Your task to perform on an android device: What's on my calendar today? Image 0: 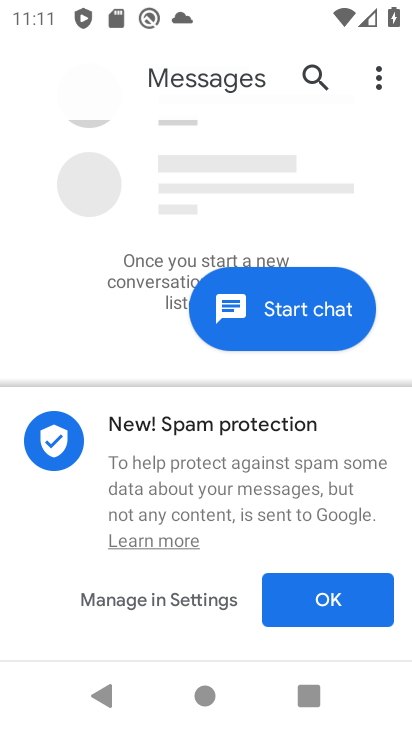
Step 0: press home button
Your task to perform on an android device: What's on my calendar today? Image 1: 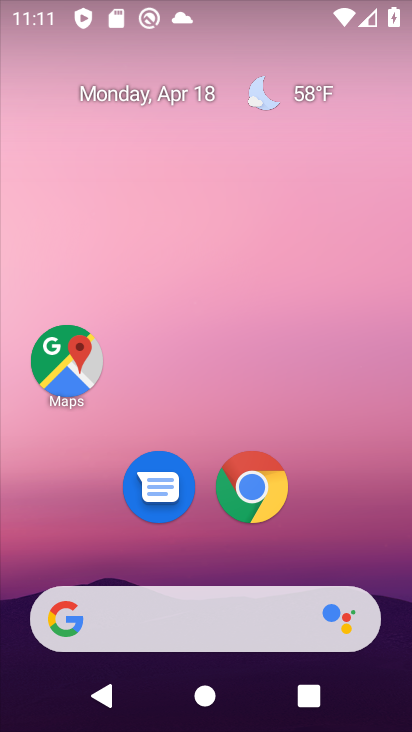
Step 1: drag from (198, 437) to (167, 118)
Your task to perform on an android device: What's on my calendar today? Image 2: 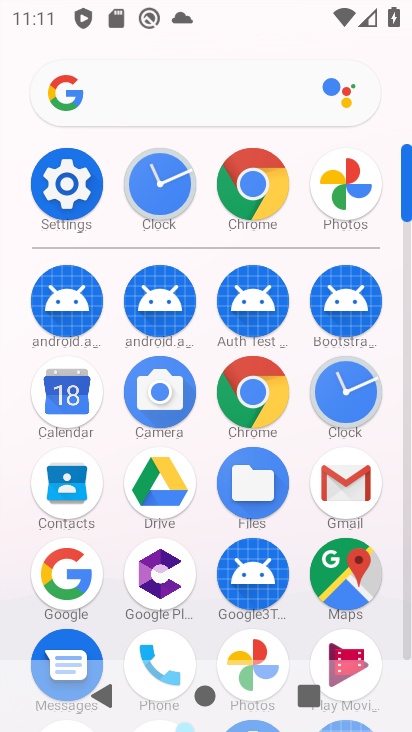
Step 2: click (88, 406)
Your task to perform on an android device: What's on my calendar today? Image 3: 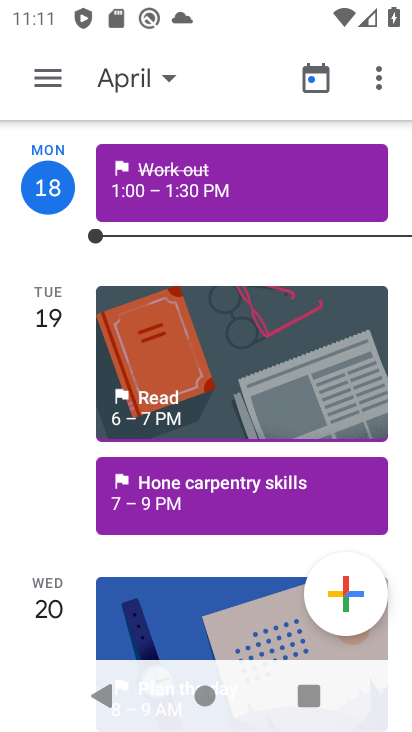
Step 3: click (65, 70)
Your task to perform on an android device: What's on my calendar today? Image 4: 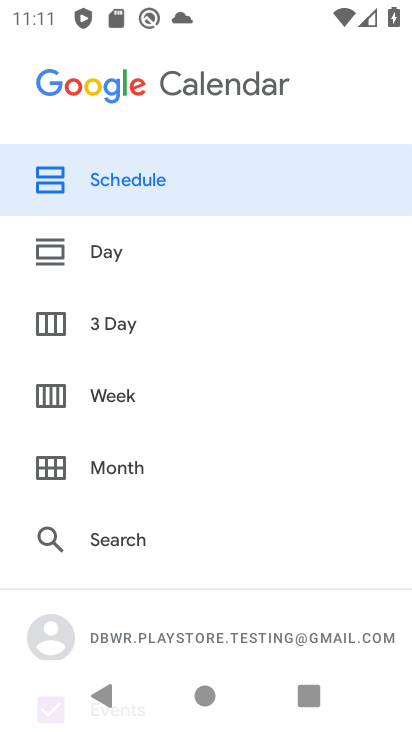
Step 4: click (125, 261)
Your task to perform on an android device: What's on my calendar today? Image 5: 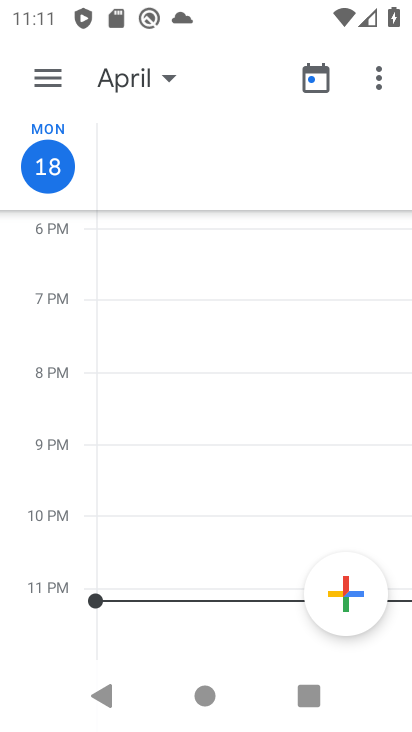
Step 5: task complete